Your task to perform on an android device: toggle notification dots Image 0: 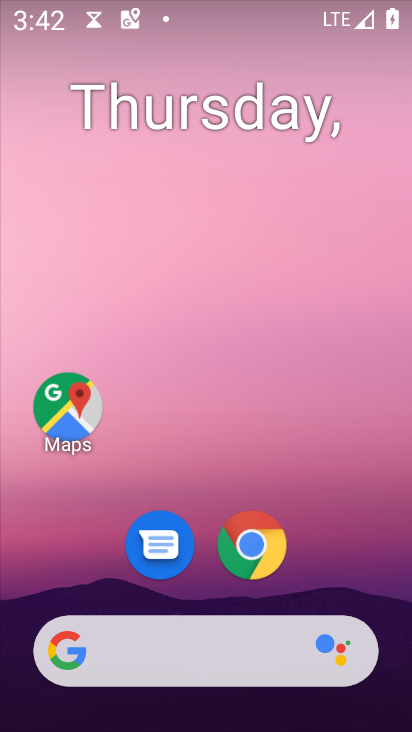
Step 0: drag from (346, 590) to (380, 93)
Your task to perform on an android device: toggle notification dots Image 1: 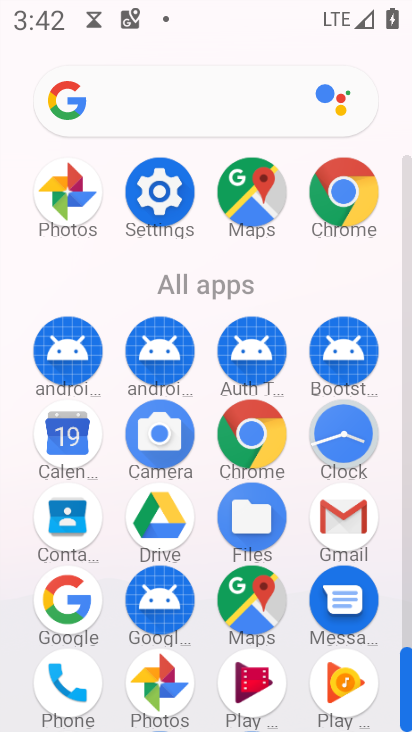
Step 1: click (193, 190)
Your task to perform on an android device: toggle notification dots Image 2: 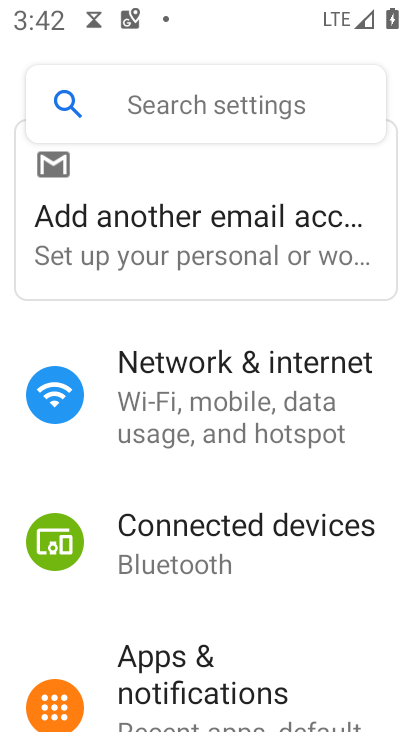
Step 2: drag from (271, 666) to (331, 343)
Your task to perform on an android device: toggle notification dots Image 3: 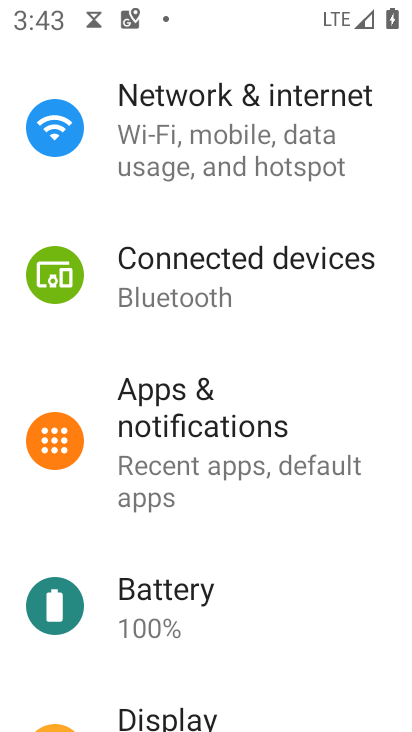
Step 3: click (212, 437)
Your task to perform on an android device: toggle notification dots Image 4: 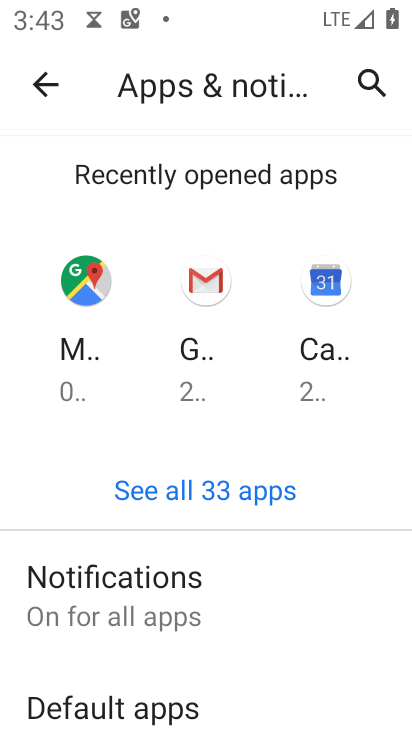
Step 4: drag from (278, 646) to (287, 518)
Your task to perform on an android device: toggle notification dots Image 5: 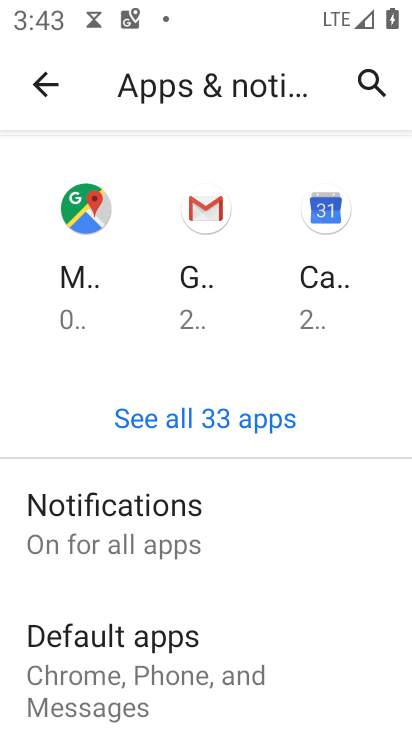
Step 5: click (77, 494)
Your task to perform on an android device: toggle notification dots Image 6: 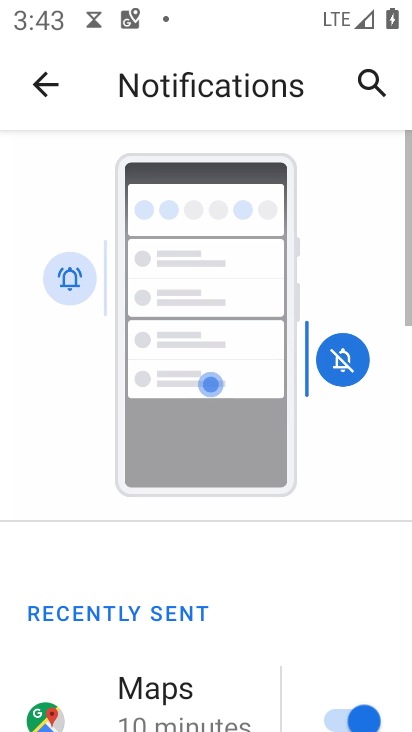
Step 6: drag from (145, 677) to (130, 285)
Your task to perform on an android device: toggle notification dots Image 7: 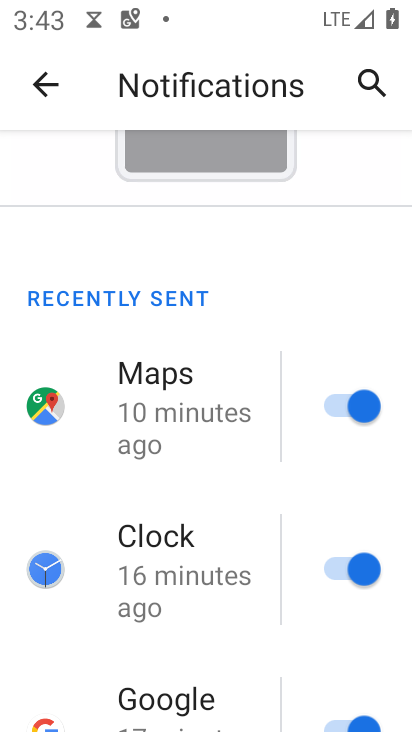
Step 7: drag from (145, 627) to (184, 257)
Your task to perform on an android device: toggle notification dots Image 8: 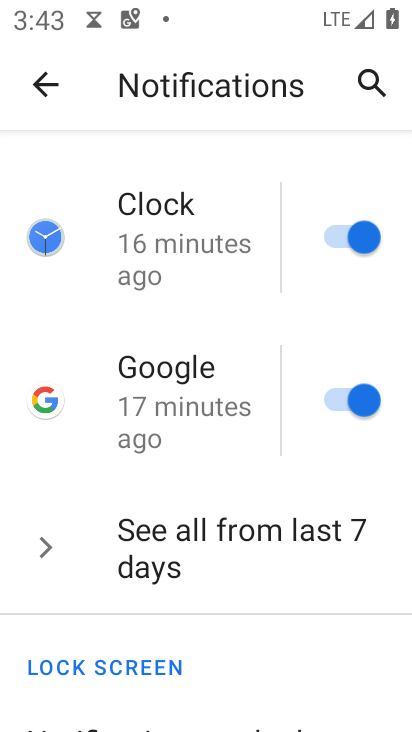
Step 8: drag from (161, 636) to (199, 221)
Your task to perform on an android device: toggle notification dots Image 9: 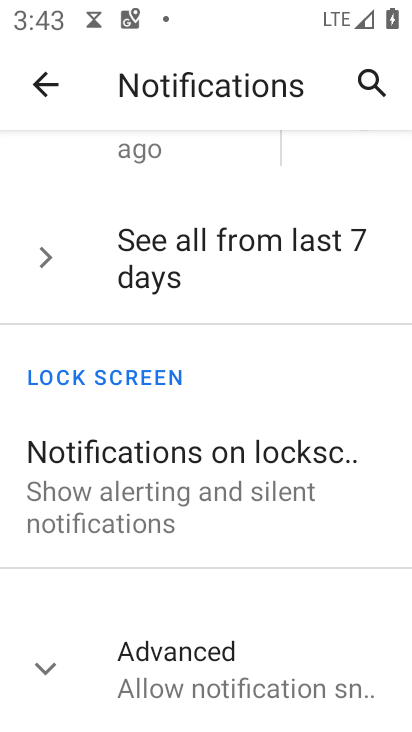
Step 9: click (194, 680)
Your task to perform on an android device: toggle notification dots Image 10: 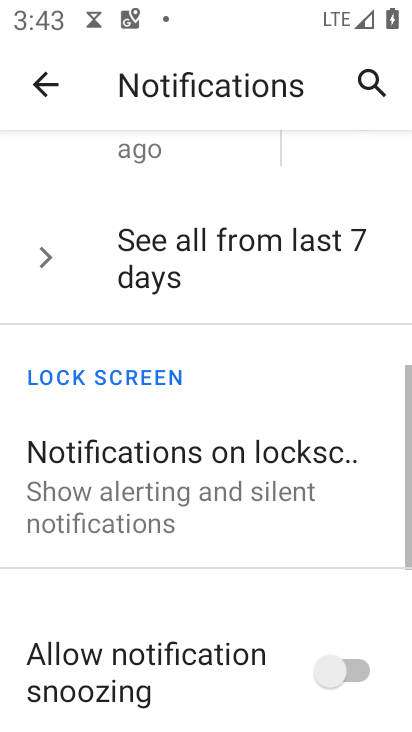
Step 10: drag from (194, 642) to (229, 350)
Your task to perform on an android device: toggle notification dots Image 11: 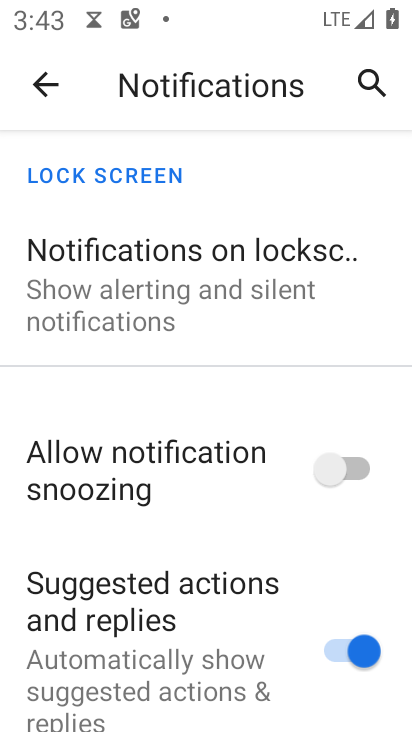
Step 11: drag from (247, 667) to (261, 318)
Your task to perform on an android device: toggle notification dots Image 12: 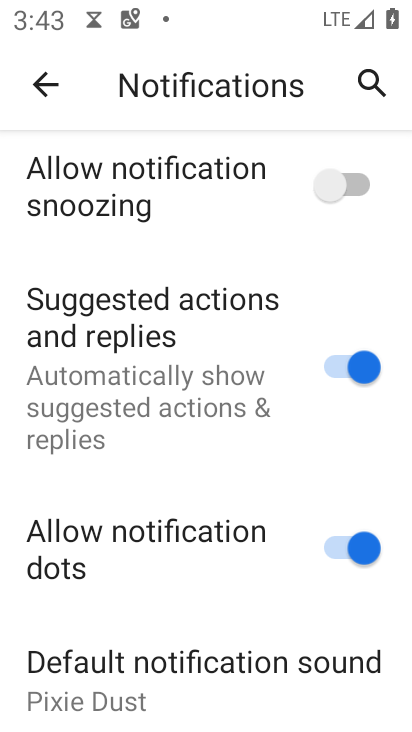
Step 12: drag from (206, 686) to (222, 310)
Your task to perform on an android device: toggle notification dots Image 13: 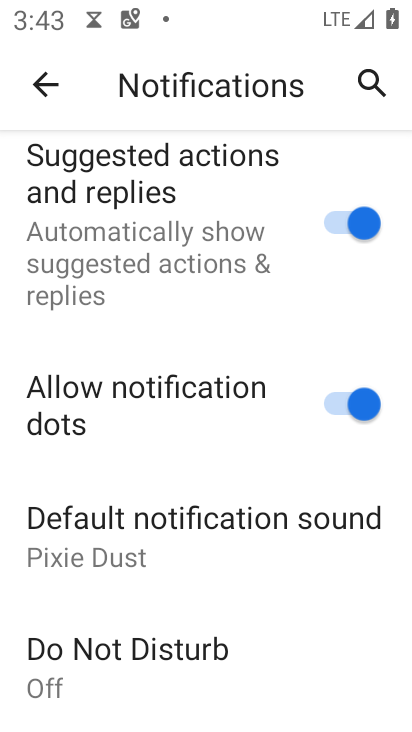
Step 13: click (330, 395)
Your task to perform on an android device: toggle notification dots Image 14: 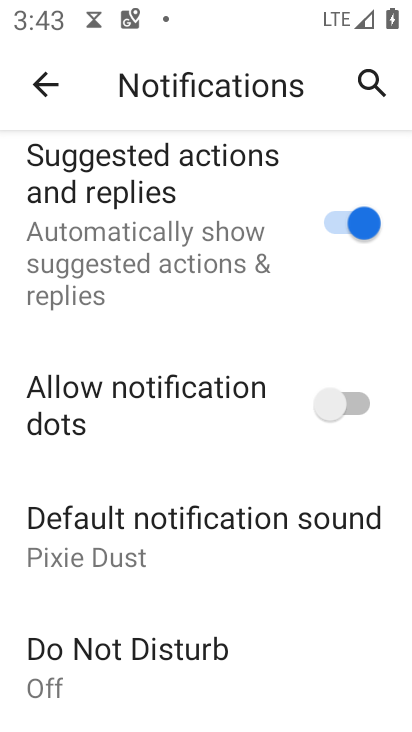
Step 14: task complete